Your task to perform on an android device: turn smart compose on in the gmail app Image 0: 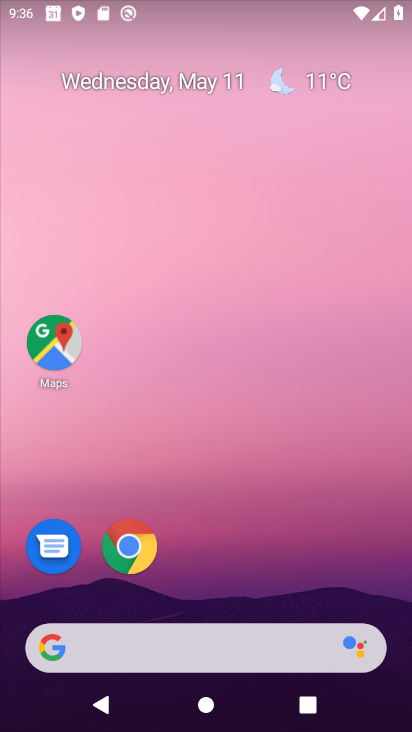
Step 0: drag from (177, 633) to (141, 184)
Your task to perform on an android device: turn smart compose on in the gmail app Image 1: 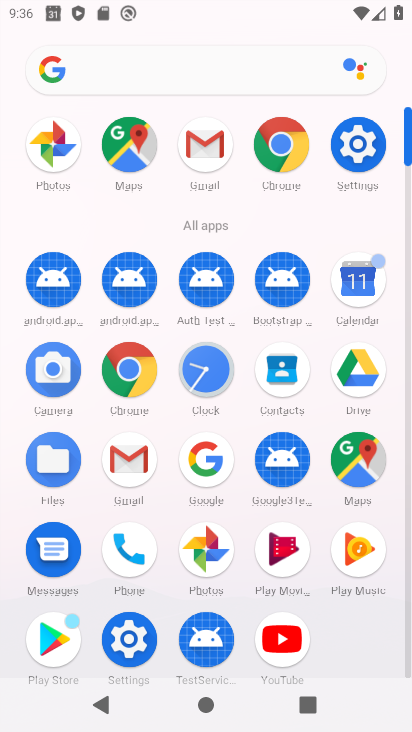
Step 1: click (137, 462)
Your task to perform on an android device: turn smart compose on in the gmail app Image 2: 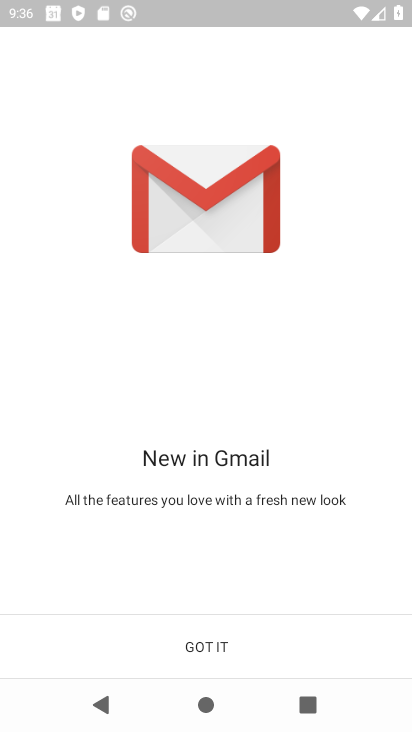
Step 2: click (202, 631)
Your task to perform on an android device: turn smart compose on in the gmail app Image 3: 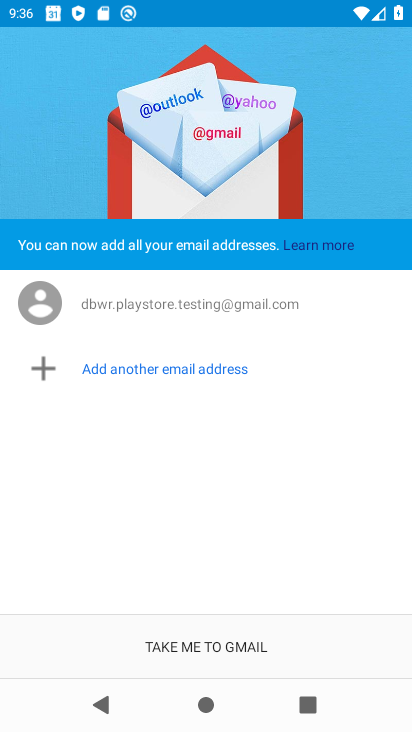
Step 3: click (202, 631)
Your task to perform on an android device: turn smart compose on in the gmail app Image 4: 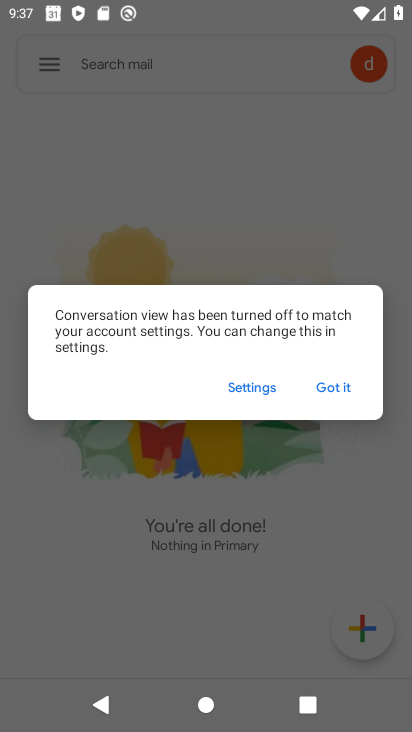
Step 4: click (341, 383)
Your task to perform on an android device: turn smart compose on in the gmail app Image 5: 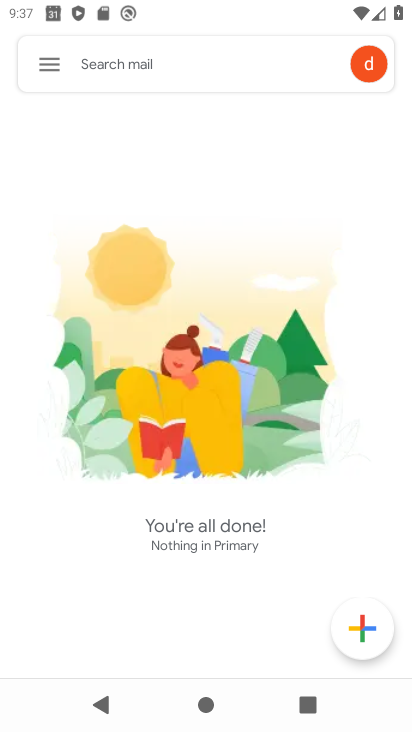
Step 5: click (42, 46)
Your task to perform on an android device: turn smart compose on in the gmail app Image 6: 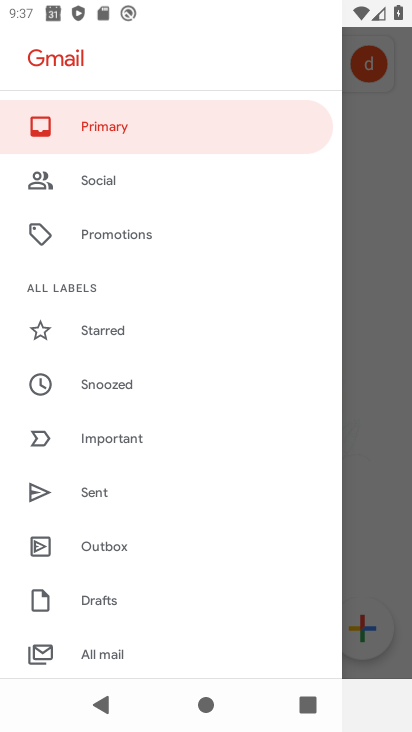
Step 6: drag from (73, 538) to (49, 98)
Your task to perform on an android device: turn smart compose on in the gmail app Image 7: 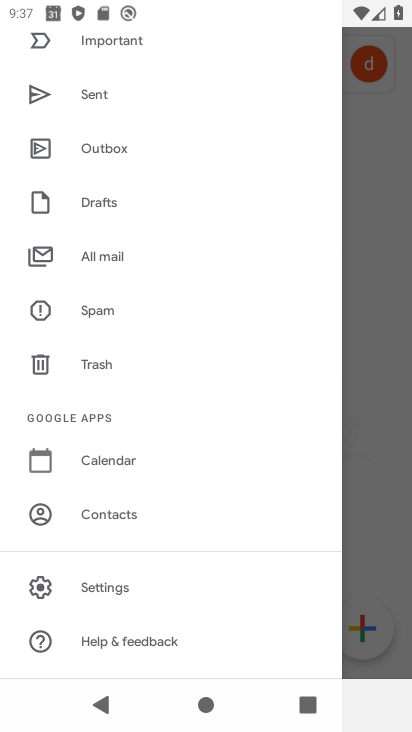
Step 7: click (117, 597)
Your task to perform on an android device: turn smart compose on in the gmail app Image 8: 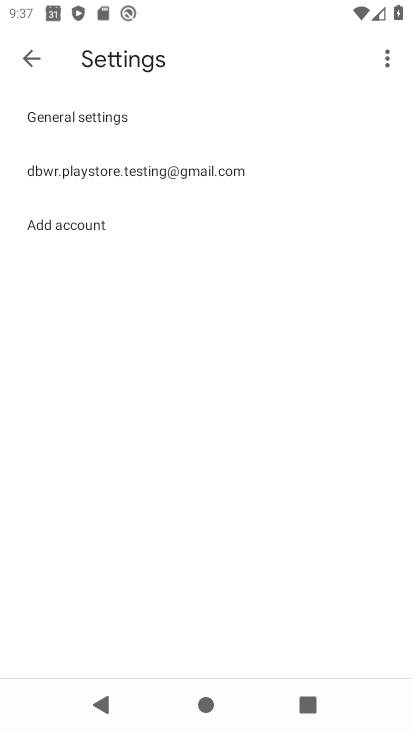
Step 8: click (112, 174)
Your task to perform on an android device: turn smart compose on in the gmail app Image 9: 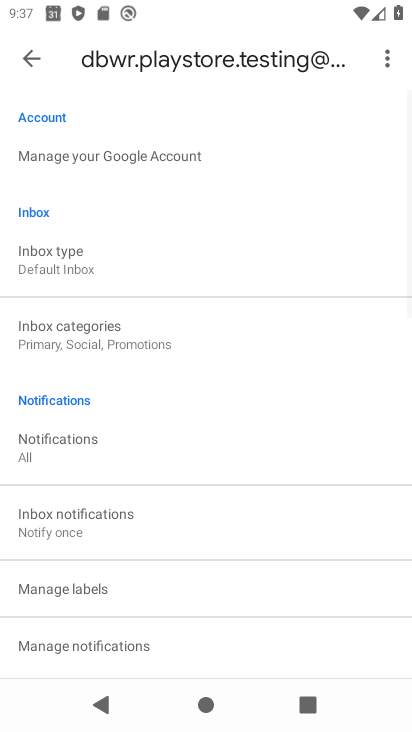
Step 9: task complete